Your task to perform on an android device: open the mobile data screen to see how much data has been used Image 0: 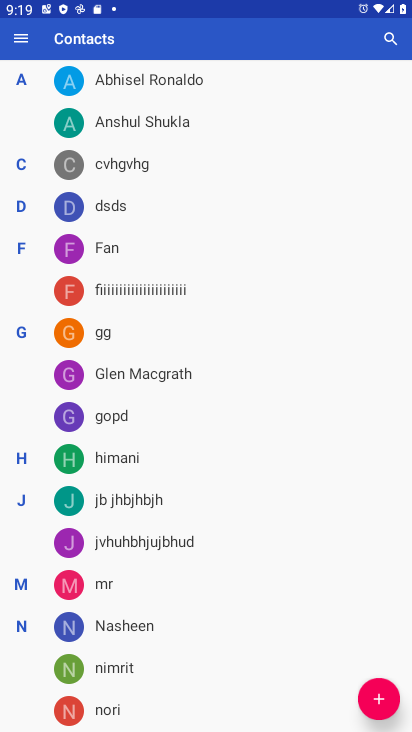
Step 0: press back button
Your task to perform on an android device: open the mobile data screen to see how much data has been used Image 1: 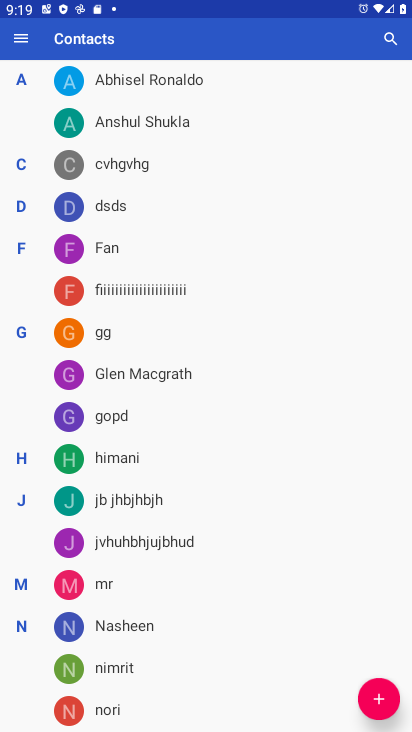
Step 1: press back button
Your task to perform on an android device: open the mobile data screen to see how much data has been used Image 2: 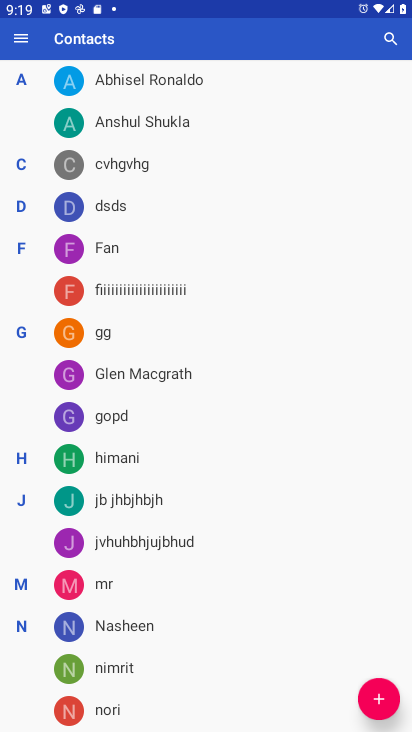
Step 2: press home button
Your task to perform on an android device: open the mobile data screen to see how much data has been used Image 3: 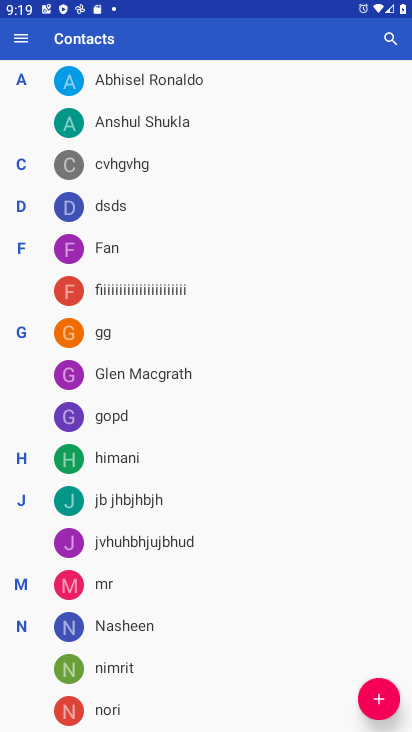
Step 3: press home button
Your task to perform on an android device: open the mobile data screen to see how much data has been used Image 4: 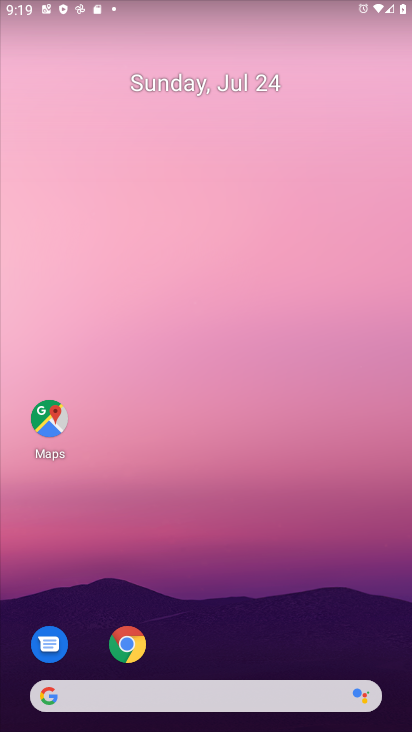
Step 4: drag from (269, 690) to (143, 34)
Your task to perform on an android device: open the mobile data screen to see how much data has been used Image 5: 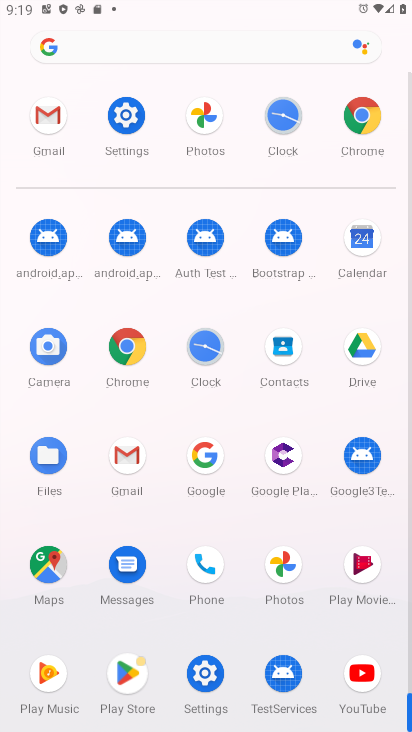
Step 5: click (126, 119)
Your task to perform on an android device: open the mobile data screen to see how much data has been used Image 6: 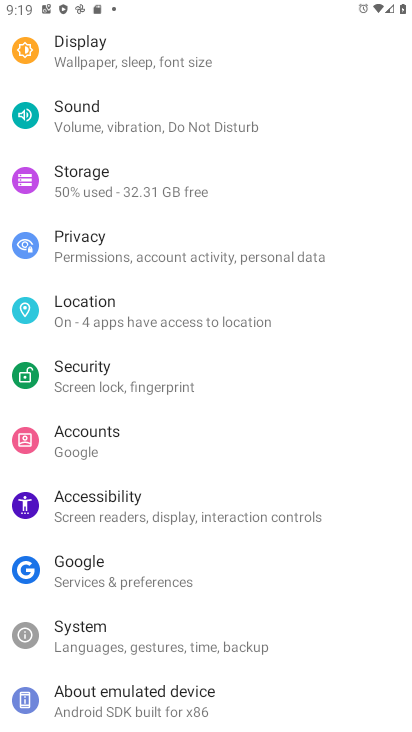
Step 6: click (143, 131)
Your task to perform on an android device: open the mobile data screen to see how much data has been used Image 7: 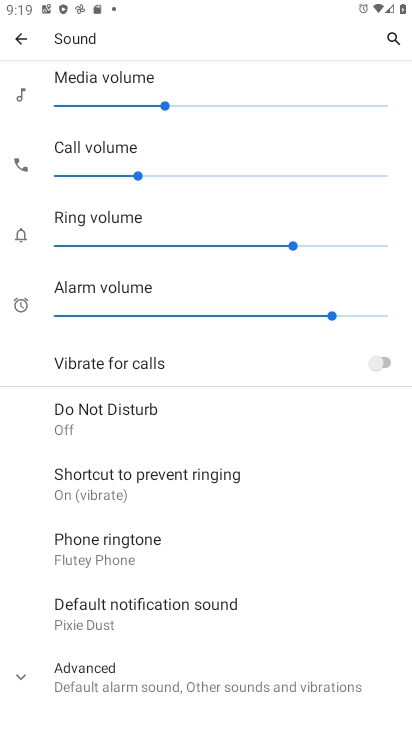
Step 7: click (17, 48)
Your task to perform on an android device: open the mobile data screen to see how much data has been used Image 8: 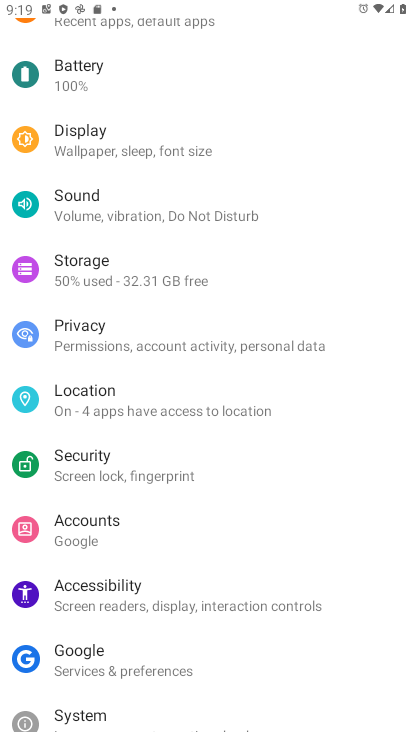
Step 8: drag from (87, 151) to (158, 465)
Your task to perform on an android device: open the mobile data screen to see how much data has been used Image 9: 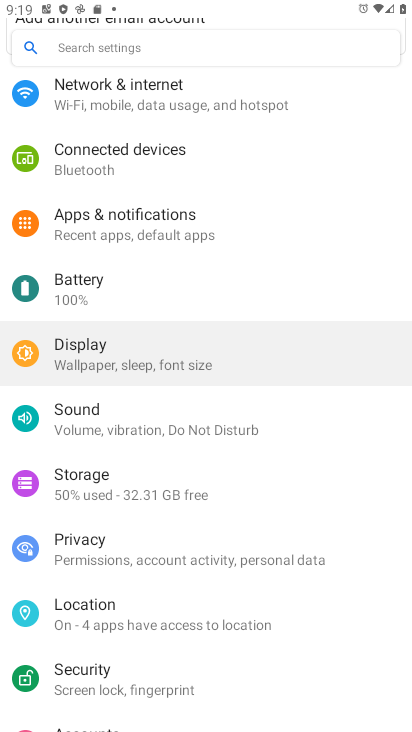
Step 9: drag from (134, 216) to (192, 590)
Your task to perform on an android device: open the mobile data screen to see how much data has been used Image 10: 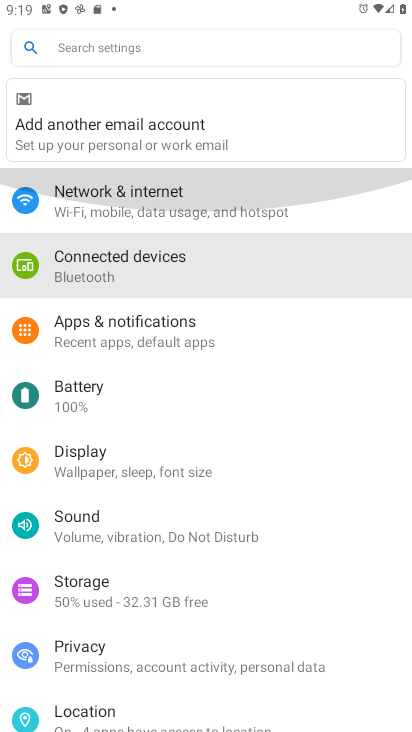
Step 10: drag from (144, 258) to (165, 611)
Your task to perform on an android device: open the mobile data screen to see how much data has been used Image 11: 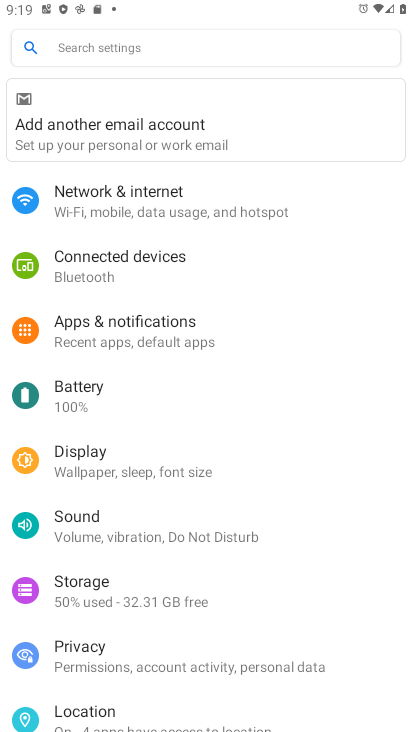
Step 11: click (94, 210)
Your task to perform on an android device: open the mobile data screen to see how much data has been used Image 12: 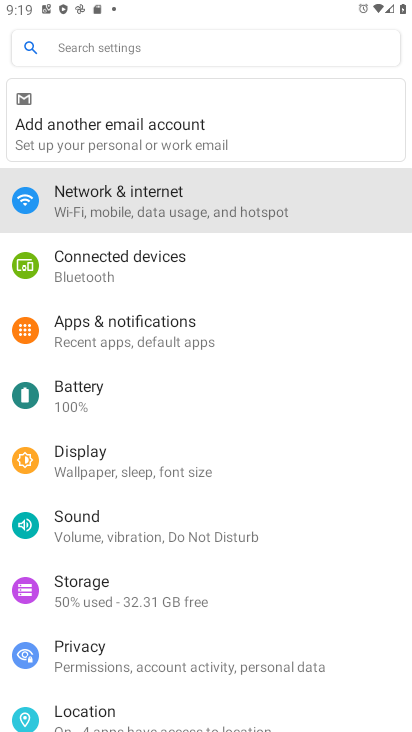
Step 12: click (94, 210)
Your task to perform on an android device: open the mobile data screen to see how much data has been used Image 13: 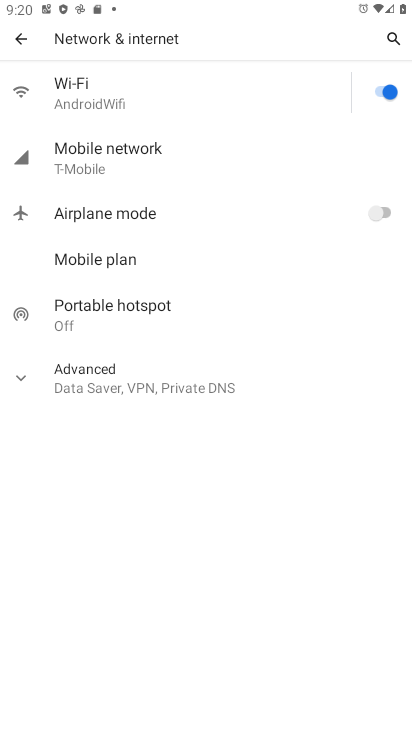
Step 13: click (72, 173)
Your task to perform on an android device: open the mobile data screen to see how much data has been used Image 14: 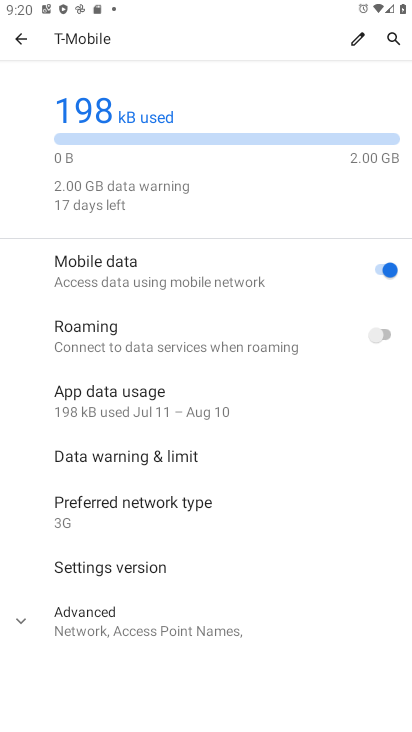
Step 14: task complete